Your task to perform on an android device: turn off smart reply in the gmail app Image 0: 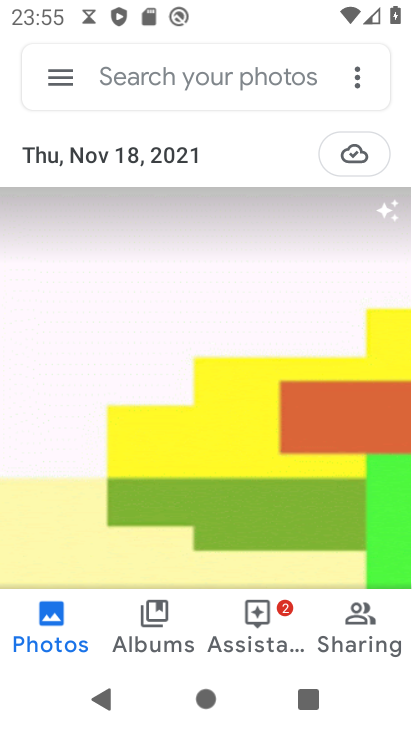
Step 0: press home button
Your task to perform on an android device: turn off smart reply in the gmail app Image 1: 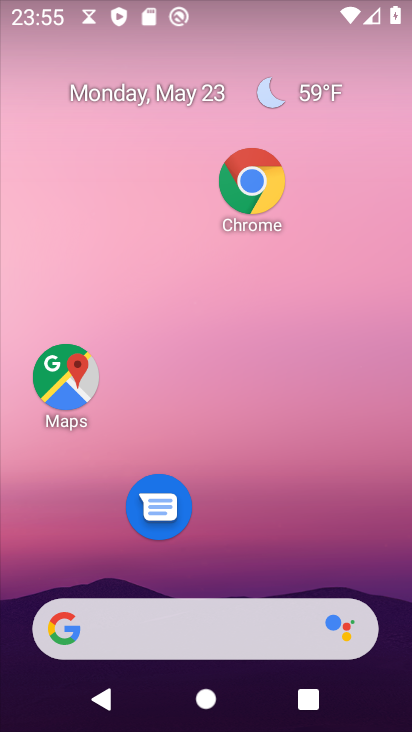
Step 1: drag from (223, 537) to (248, 106)
Your task to perform on an android device: turn off smart reply in the gmail app Image 2: 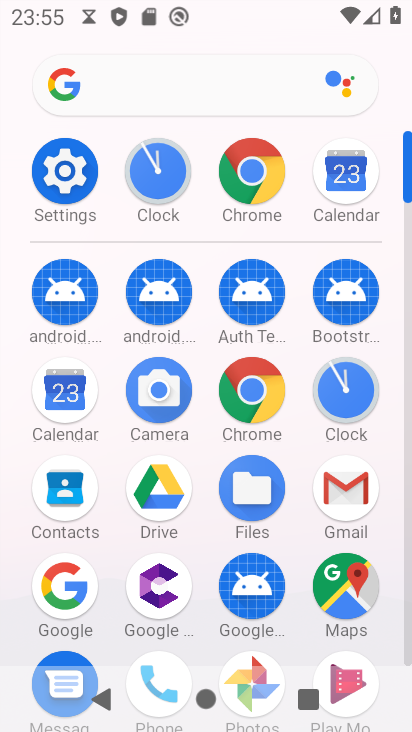
Step 2: click (351, 493)
Your task to perform on an android device: turn off smart reply in the gmail app Image 3: 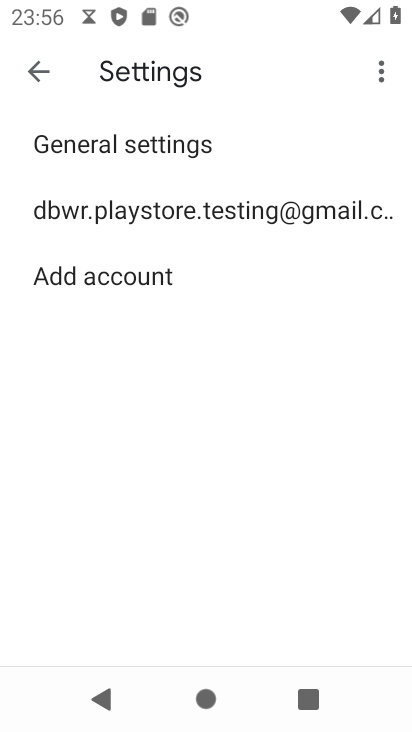
Step 3: click (305, 206)
Your task to perform on an android device: turn off smart reply in the gmail app Image 4: 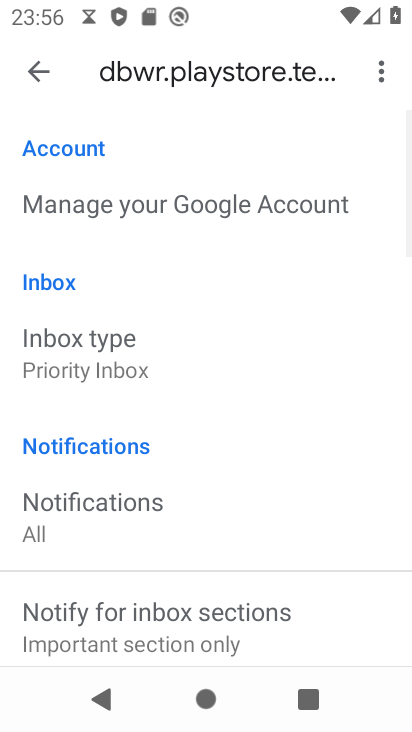
Step 4: drag from (164, 421) to (163, 229)
Your task to perform on an android device: turn off smart reply in the gmail app Image 5: 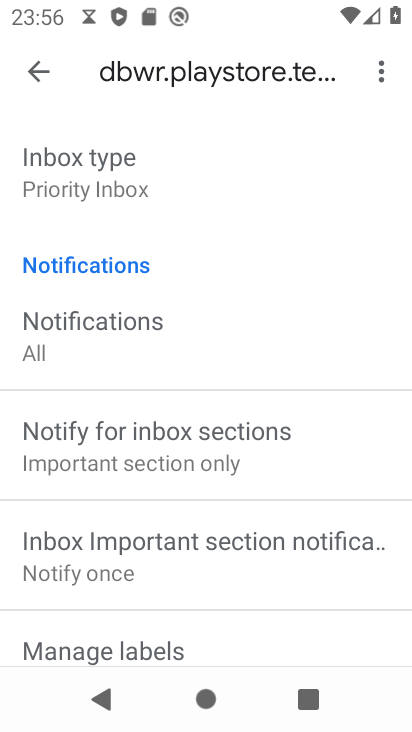
Step 5: drag from (122, 492) to (188, 169)
Your task to perform on an android device: turn off smart reply in the gmail app Image 6: 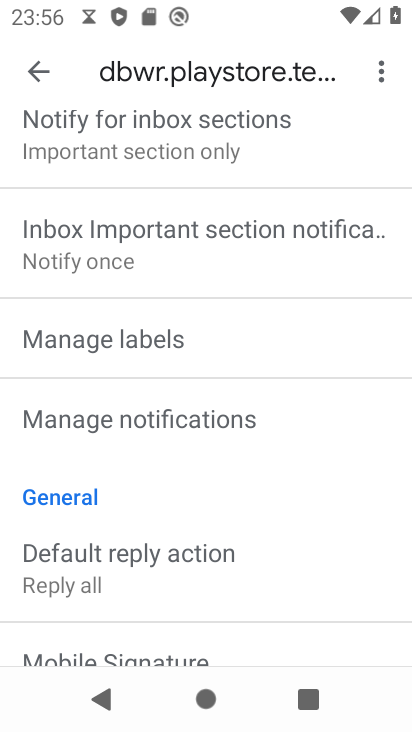
Step 6: drag from (93, 618) to (191, 339)
Your task to perform on an android device: turn off smart reply in the gmail app Image 7: 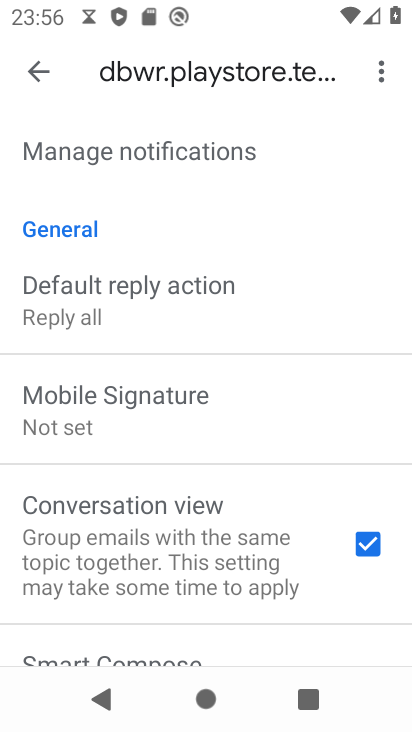
Step 7: drag from (169, 537) to (185, 352)
Your task to perform on an android device: turn off smart reply in the gmail app Image 8: 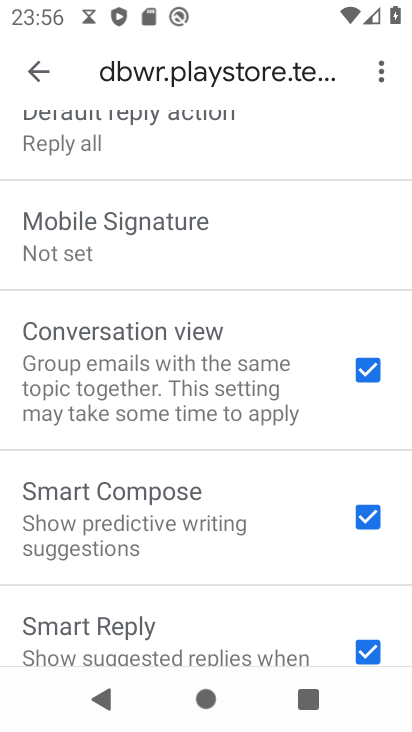
Step 8: click (365, 638)
Your task to perform on an android device: turn off smart reply in the gmail app Image 9: 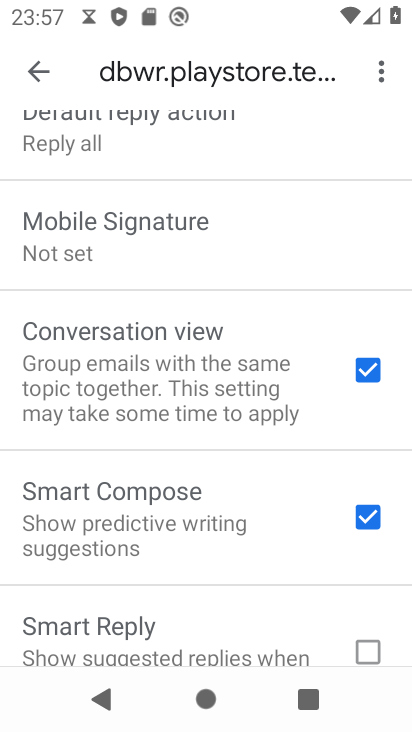
Step 9: task complete